Your task to perform on an android device: Open Maps and search for coffee Image 0: 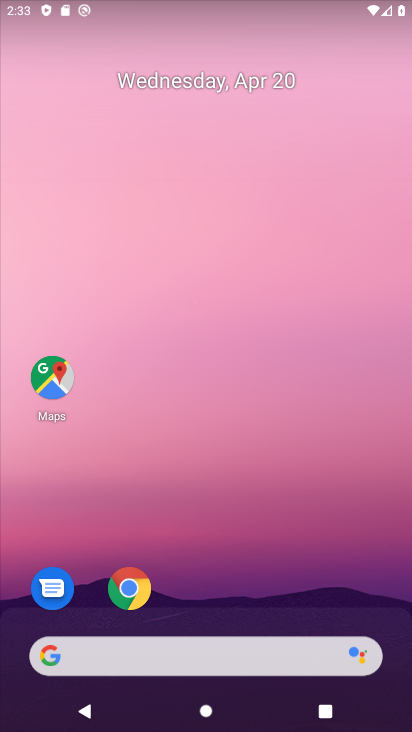
Step 0: click (52, 374)
Your task to perform on an android device: Open Maps and search for coffee Image 1: 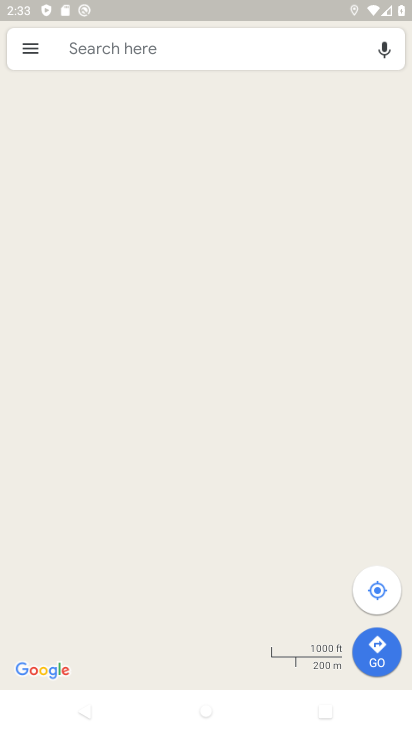
Step 1: click (241, 54)
Your task to perform on an android device: Open Maps and search for coffee Image 2: 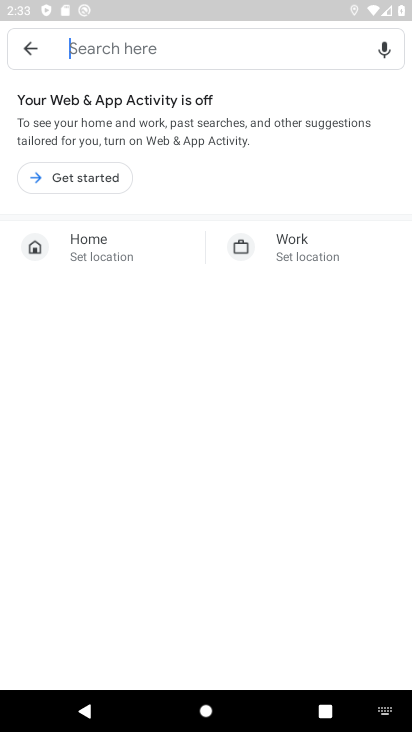
Step 2: click (76, 184)
Your task to perform on an android device: Open Maps and search for coffee Image 3: 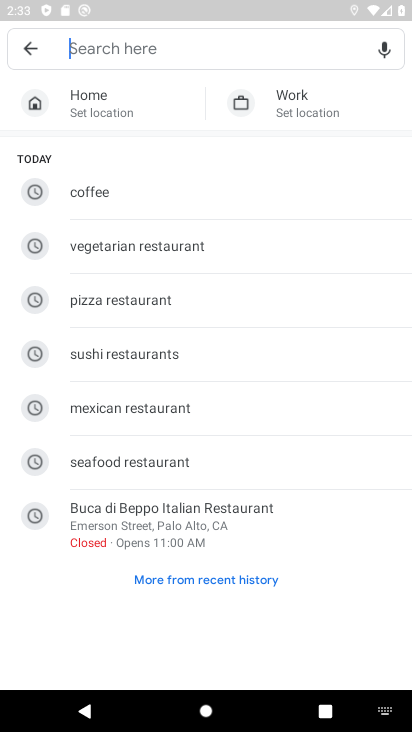
Step 3: click (154, 181)
Your task to perform on an android device: Open Maps and search for coffee Image 4: 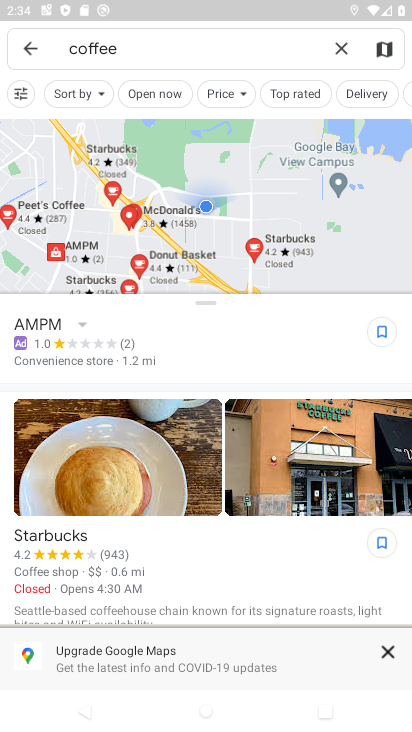
Step 4: task complete